Your task to perform on an android device: What's the weather? Image 0: 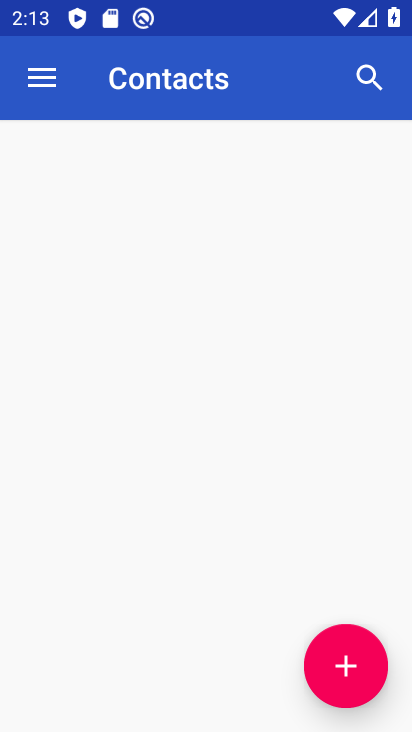
Step 0: press home button
Your task to perform on an android device: What's the weather? Image 1: 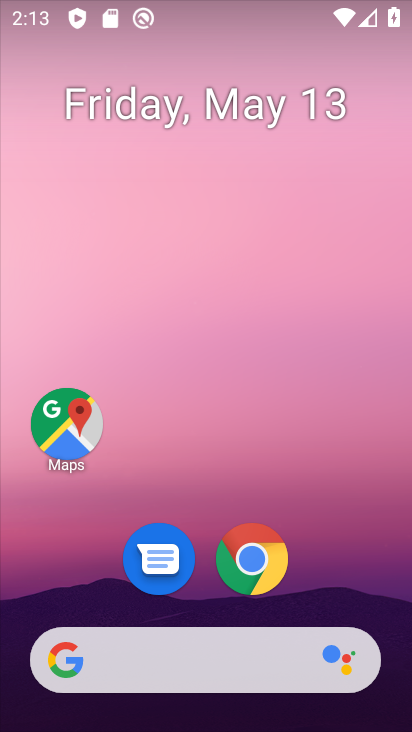
Step 1: drag from (23, 153) to (377, 247)
Your task to perform on an android device: What's the weather? Image 2: 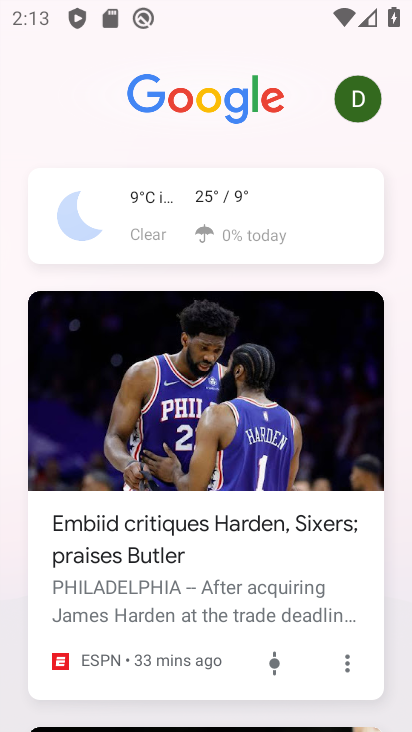
Step 2: click (230, 201)
Your task to perform on an android device: What's the weather? Image 3: 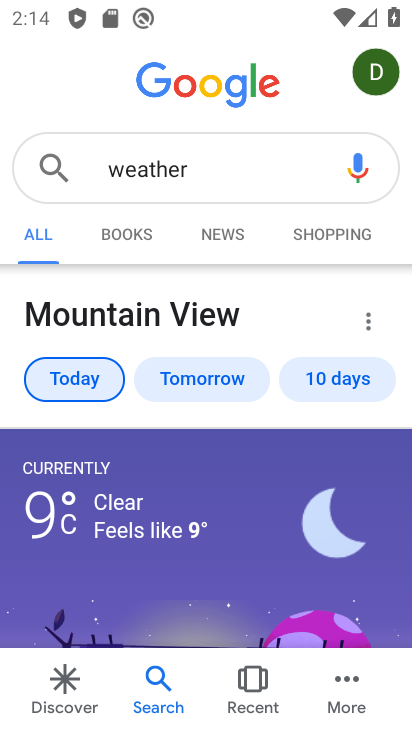
Step 3: task complete